Your task to perform on an android device: What's on my calendar tomorrow? Image 0: 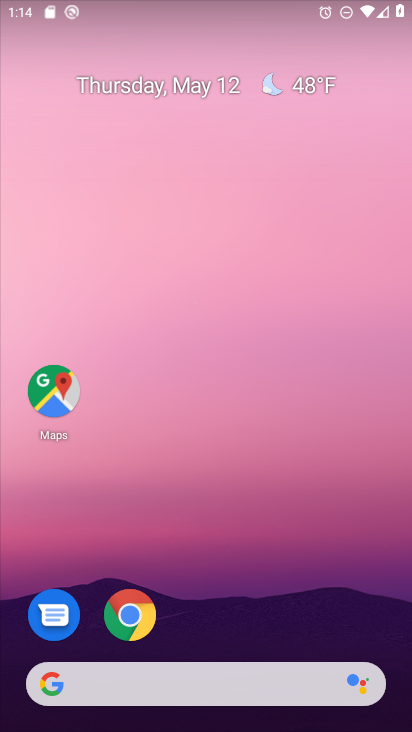
Step 0: drag from (193, 662) to (263, 146)
Your task to perform on an android device: What's on my calendar tomorrow? Image 1: 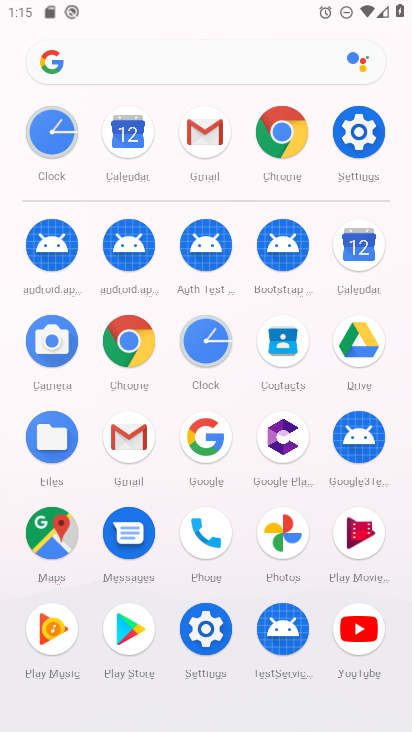
Step 1: click (364, 249)
Your task to perform on an android device: What's on my calendar tomorrow? Image 2: 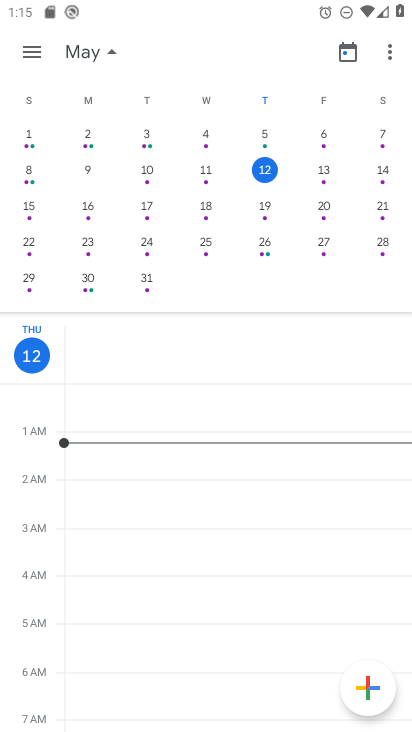
Step 2: click (318, 171)
Your task to perform on an android device: What's on my calendar tomorrow? Image 3: 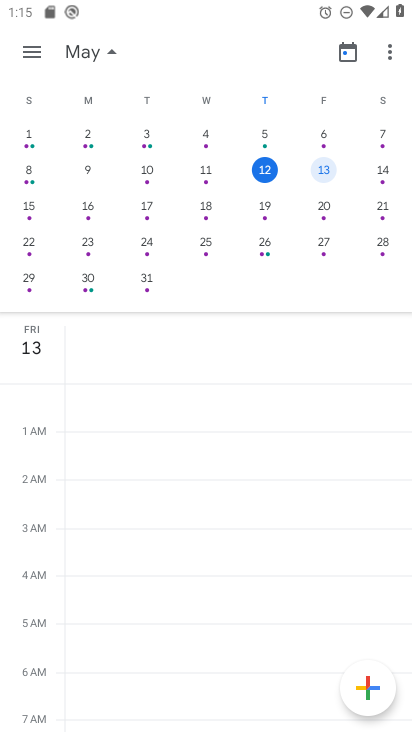
Step 3: click (31, 50)
Your task to perform on an android device: What's on my calendar tomorrow? Image 4: 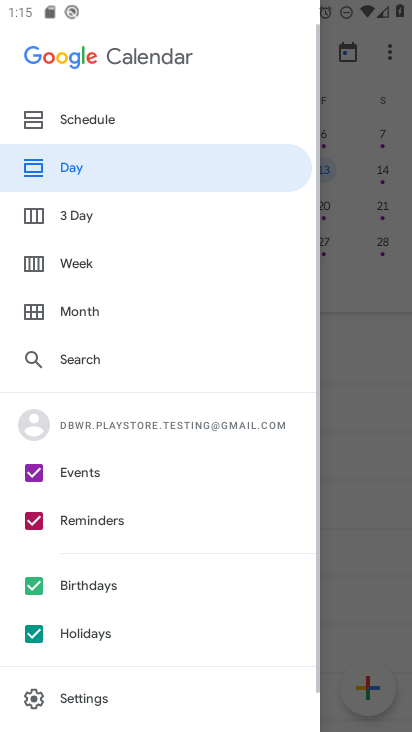
Step 4: click (75, 479)
Your task to perform on an android device: What's on my calendar tomorrow? Image 5: 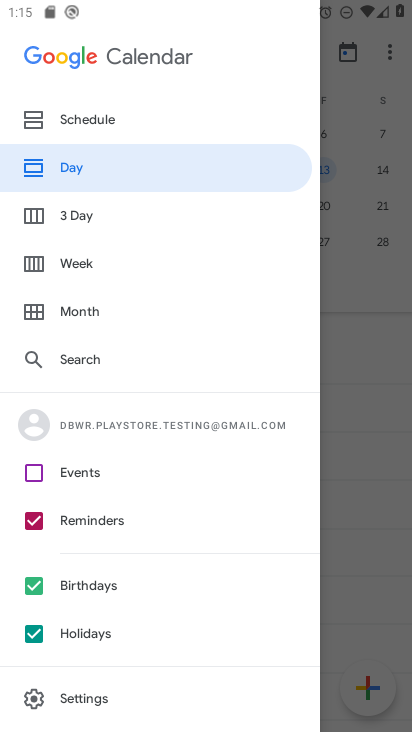
Step 5: click (73, 463)
Your task to perform on an android device: What's on my calendar tomorrow? Image 6: 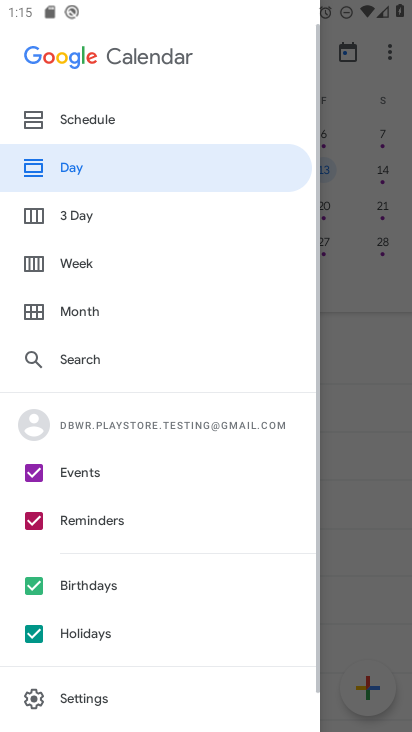
Step 6: click (356, 326)
Your task to perform on an android device: What's on my calendar tomorrow? Image 7: 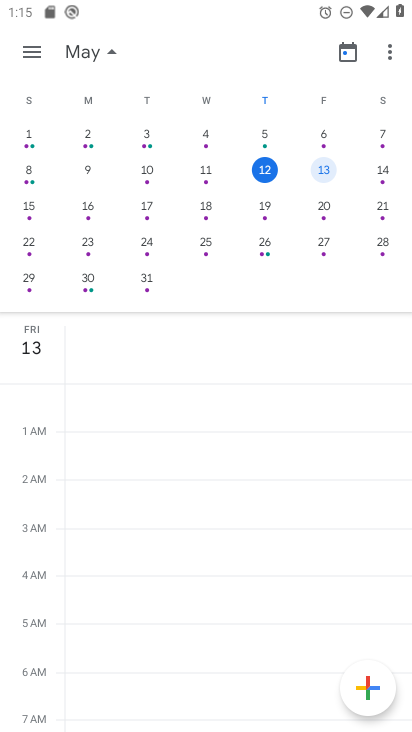
Step 7: task complete